Your task to perform on an android device: Show me the alarms in the clock app Image 0: 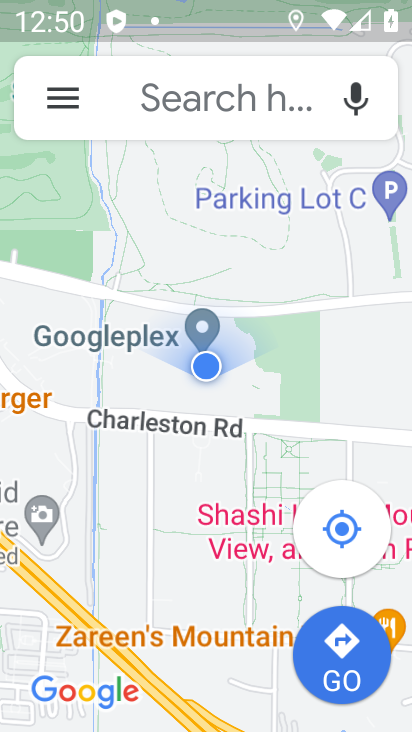
Step 0: press back button
Your task to perform on an android device: Show me the alarms in the clock app Image 1: 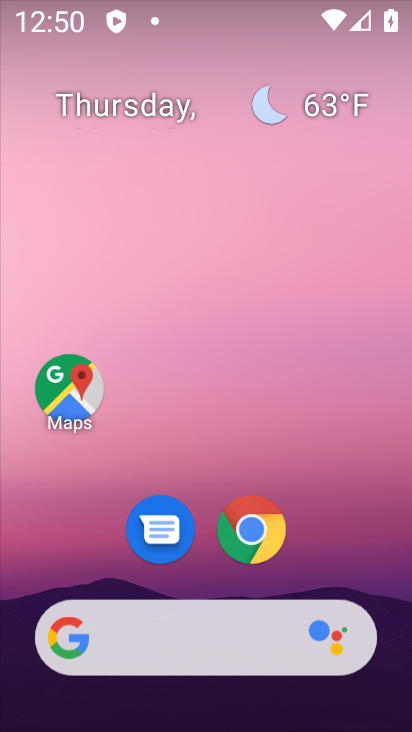
Step 1: drag from (351, 539) to (274, 163)
Your task to perform on an android device: Show me the alarms in the clock app Image 2: 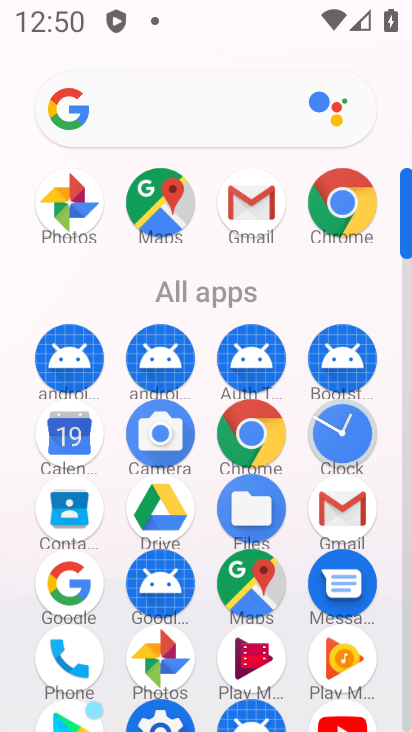
Step 2: click (341, 434)
Your task to perform on an android device: Show me the alarms in the clock app Image 3: 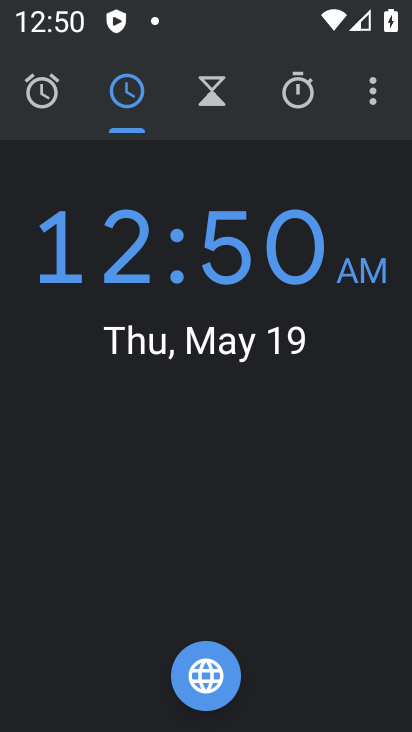
Step 3: click (42, 92)
Your task to perform on an android device: Show me the alarms in the clock app Image 4: 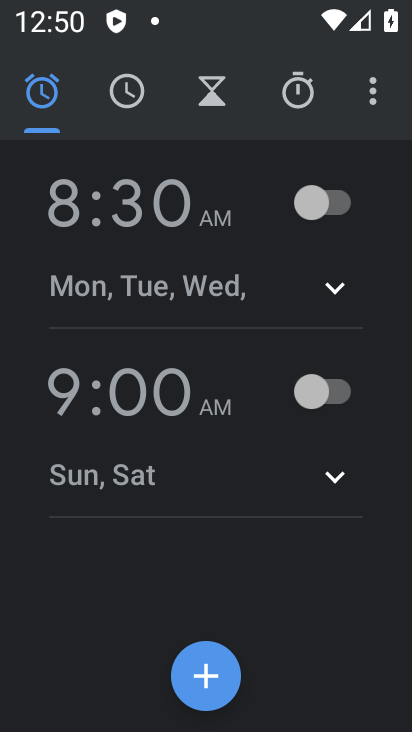
Step 4: task complete